Your task to perform on an android device: move a message to another label in the gmail app Image 0: 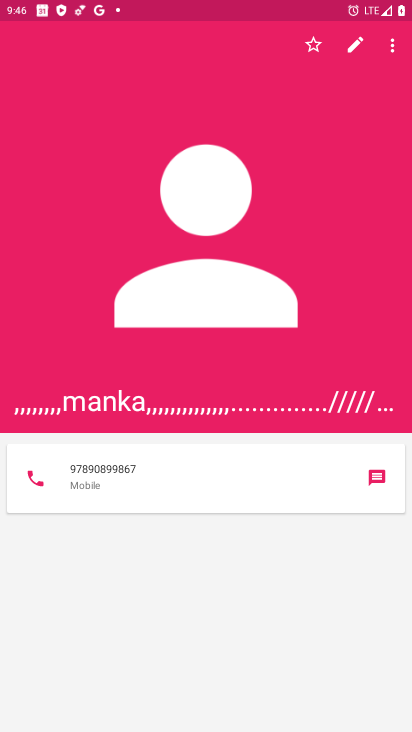
Step 0: press home button
Your task to perform on an android device: move a message to another label in the gmail app Image 1: 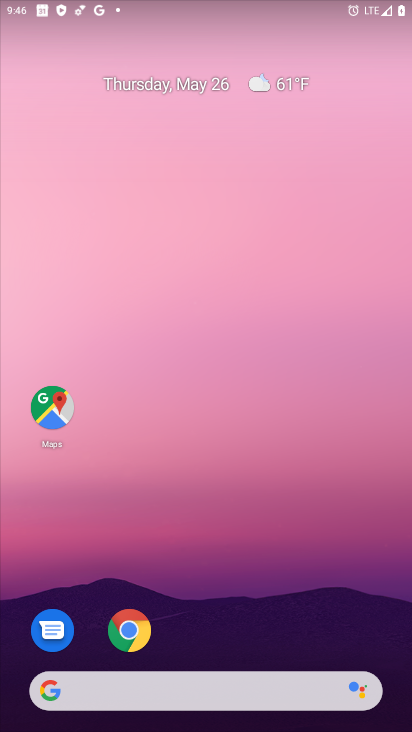
Step 1: drag from (199, 666) to (220, 102)
Your task to perform on an android device: move a message to another label in the gmail app Image 2: 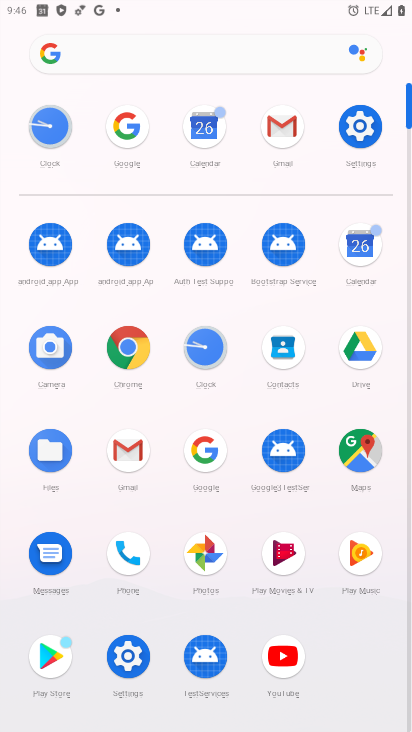
Step 2: click (130, 452)
Your task to perform on an android device: move a message to another label in the gmail app Image 3: 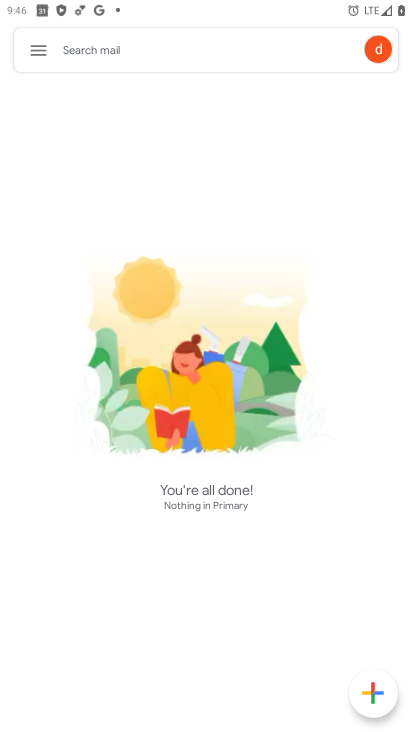
Step 3: task complete